Your task to perform on an android device: Show me popular games on the Play Store Image 0: 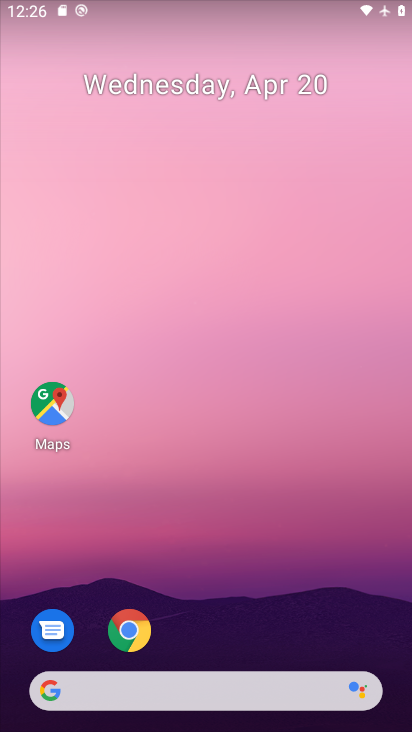
Step 0: drag from (174, 664) to (293, 162)
Your task to perform on an android device: Show me popular games on the Play Store Image 1: 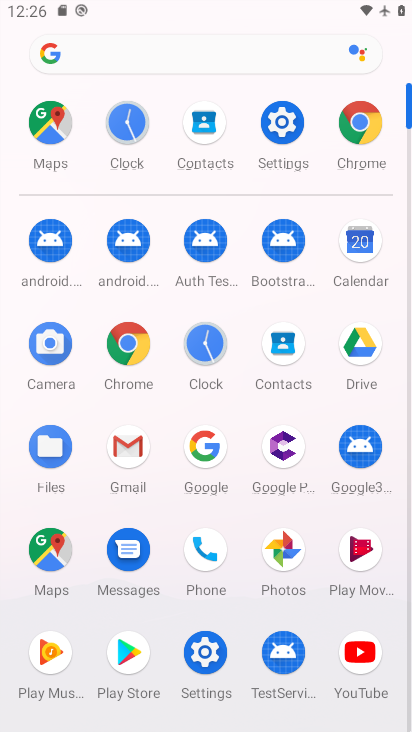
Step 1: click (129, 653)
Your task to perform on an android device: Show me popular games on the Play Store Image 2: 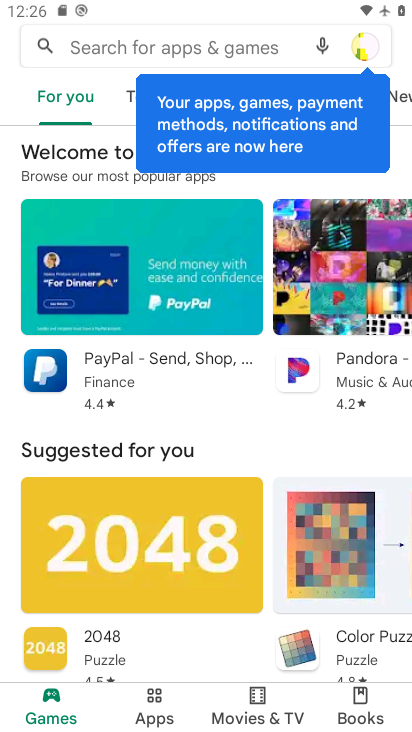
Step 2: drag from (156, 553) to (324, 121)
Your task to perform on an android device: Show me popular games on the Play Store Image 3: 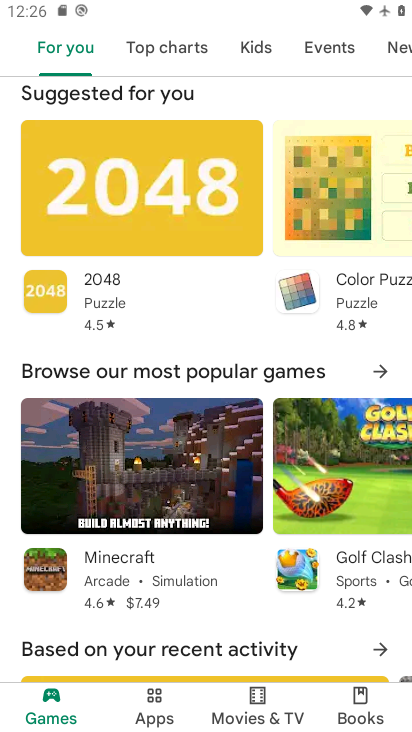
Step 3: click (312, 373)
Your task to perform on an android device: Show me popular games on the Play Store Image 4: 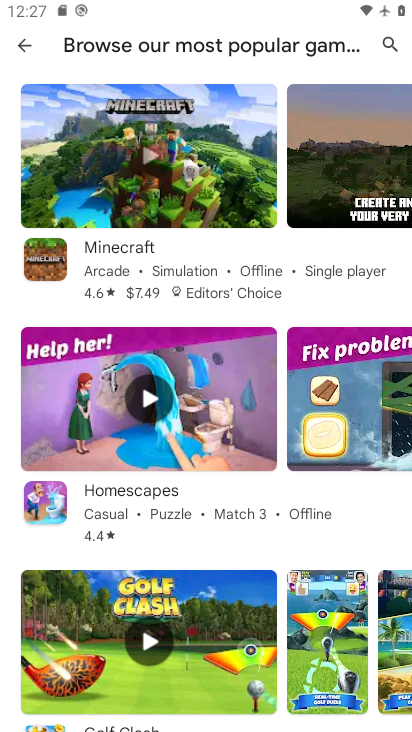
Step 4: task complete